Your task to perform on an android device: See recent photos Image 0: 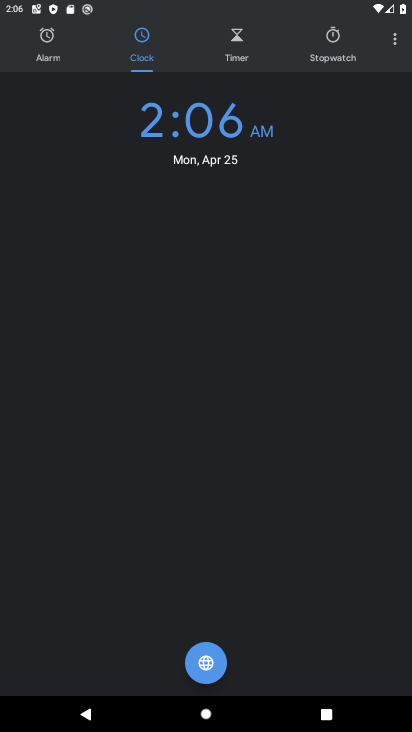
Step 0: press home button
Your task to perform on an android device: See recent photos Image 1: 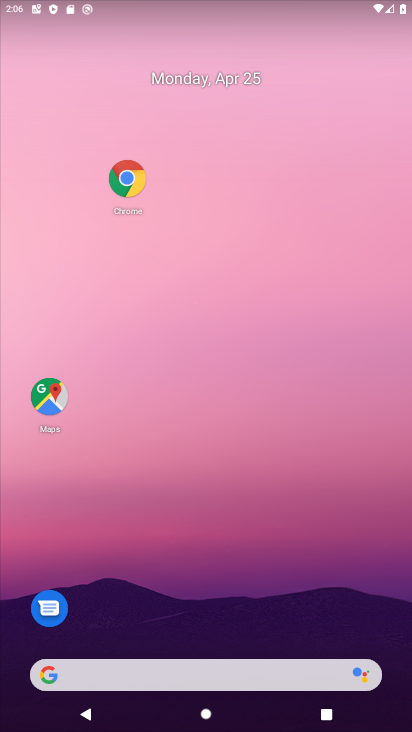
Step 1: drag from (178, 622) to (238, 178)
Your task to perform on an android device: See recent photos Image 2: 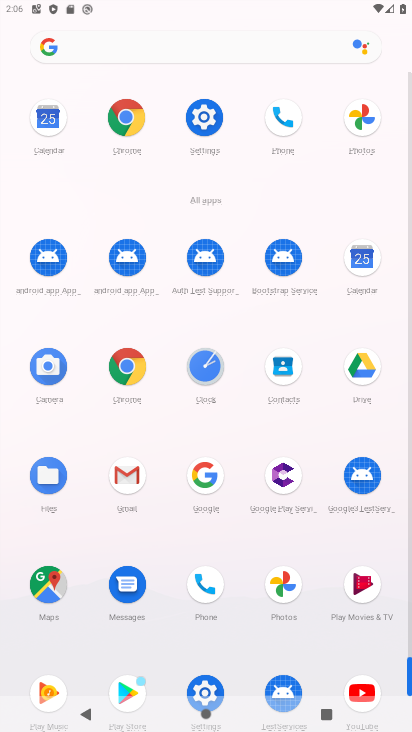
Step 2: click (288, 589)
Your task to perform on an android device: See recent photos Image 3: 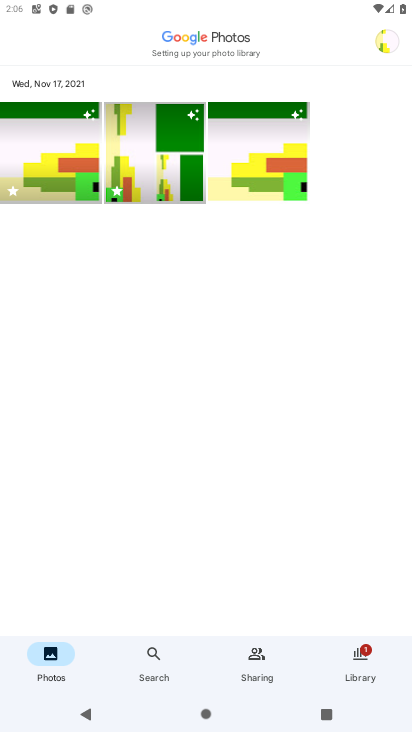
Step 3: task complete